Your task to perform on an android device: Open Reddit.com Image 0: 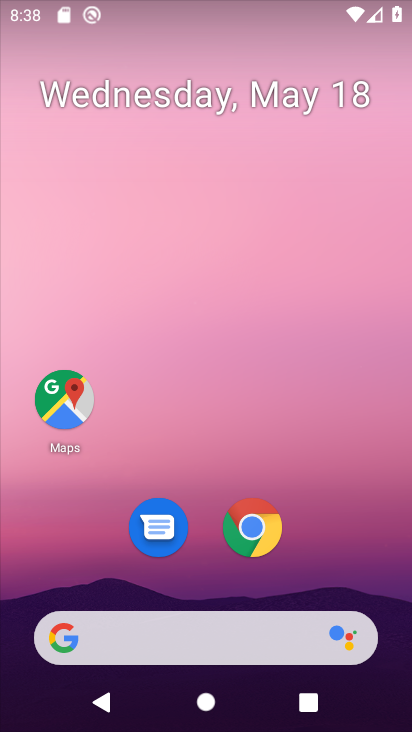
Step 0: click (250, 552)
Your task to perform on an android device: Open Reddit.com Image 1: 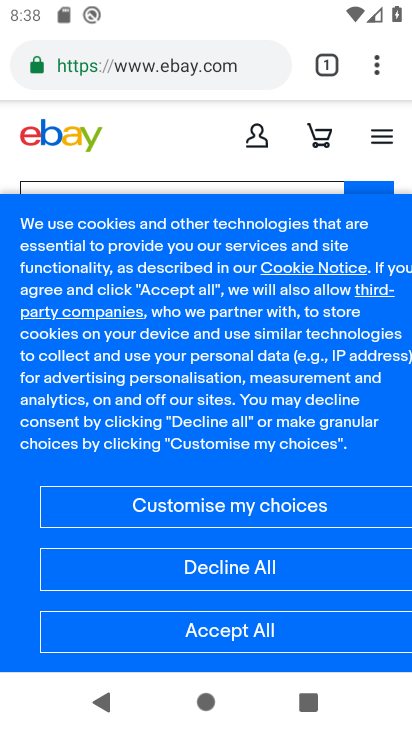
Step 1: press back button
Your task to perform on an android device: Open Reddit.com Image 2: 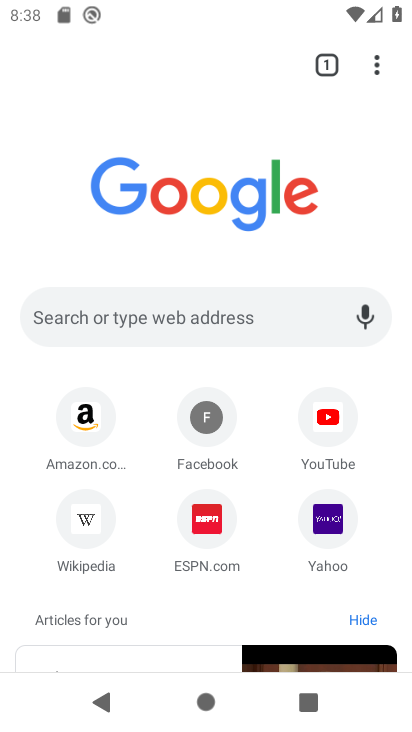
Step 2: click (153, 319)
Your task to perform on an android device: Open Reddit.com Image 3: 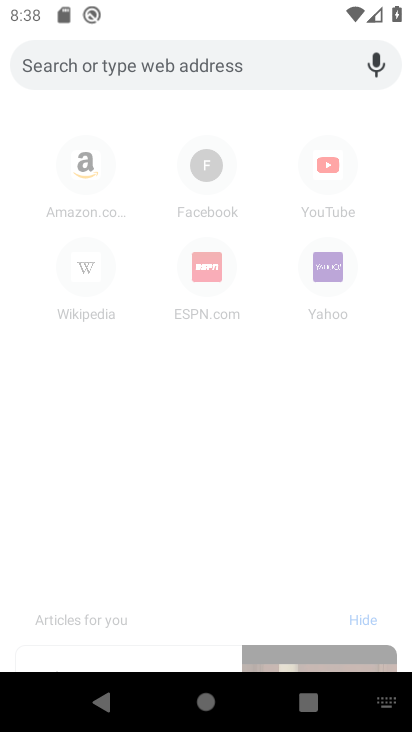
Step 3: type "www.reddit.com"
Your task to perform on an android device: Open Reddit.com Image 4: 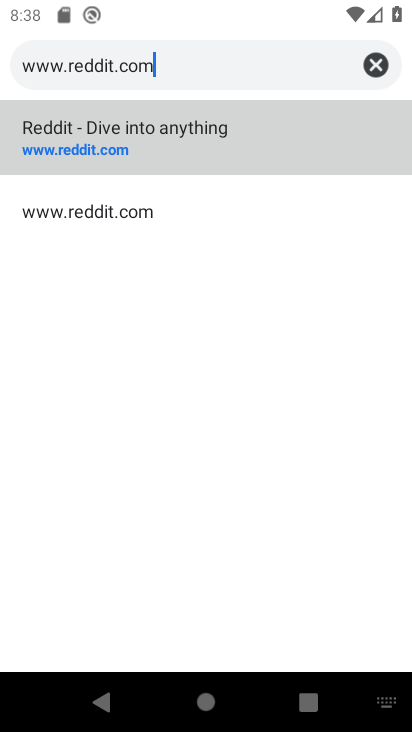
Step 4: click (55, 138)
Your task to perform on an android device: Open Reddit.com Image 5: 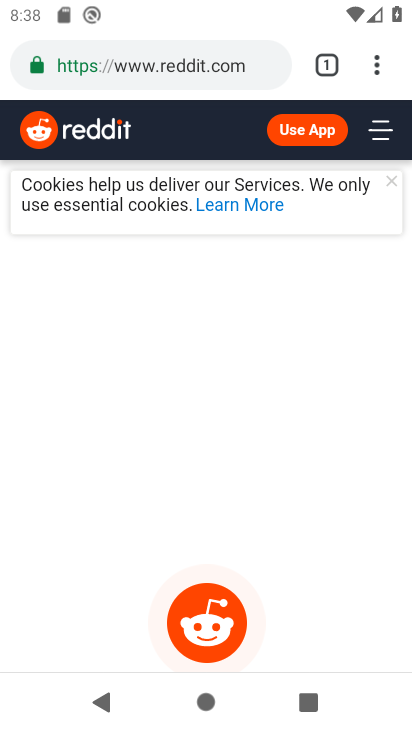
Step 5: task complete